Your task to perform on an android device: turn vacation reply on in the gmail app Image 0: 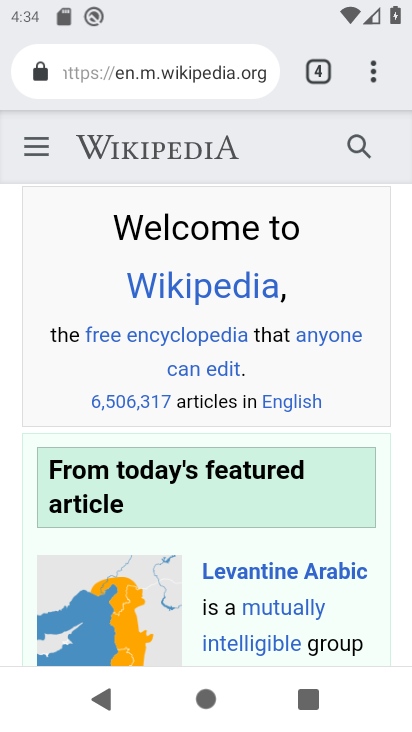
Step 0: press home button
Your task to perform on an android device: turn vacation reply on in the gmail app Image 1: 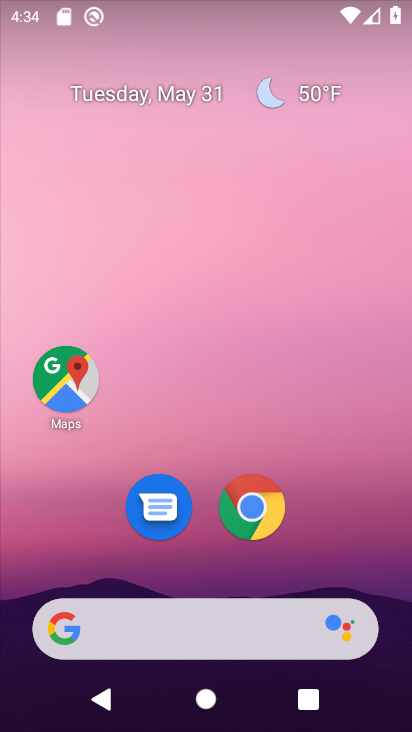
Step 1: drag from (319, 432) to (297, 51)
Your task to perform on an android device: turn vacation reply on in the gmail app Image 2: 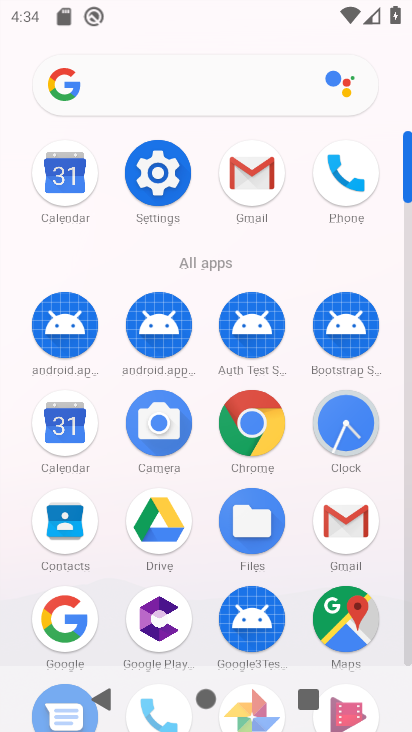
Step 2: click (236, 191)
Your task to perform on an android device: turn vacation reply on in the gmail app Image 3: 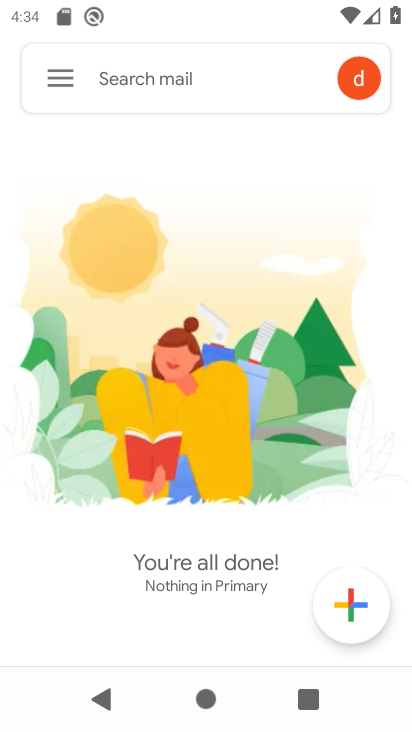
Step 3: click (56, 63)
Your task to perform on an android device: turn vacation reply on in the gmail app Image 4: 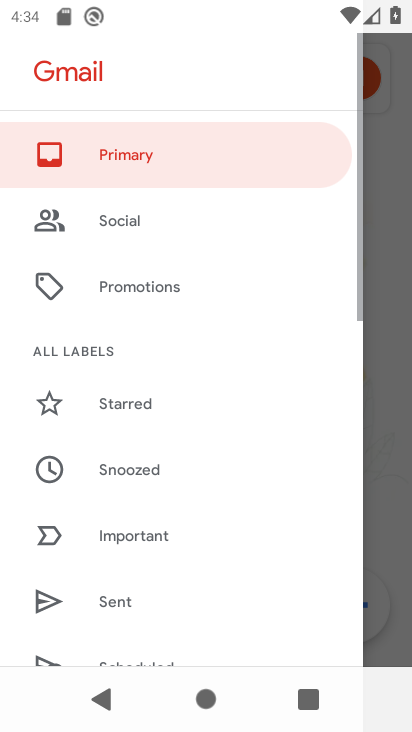
Step 4: drag from (165, 498) to (132, 5)
Your task to perform on an android device: turn vacation reply on in the gmail app Image 5: 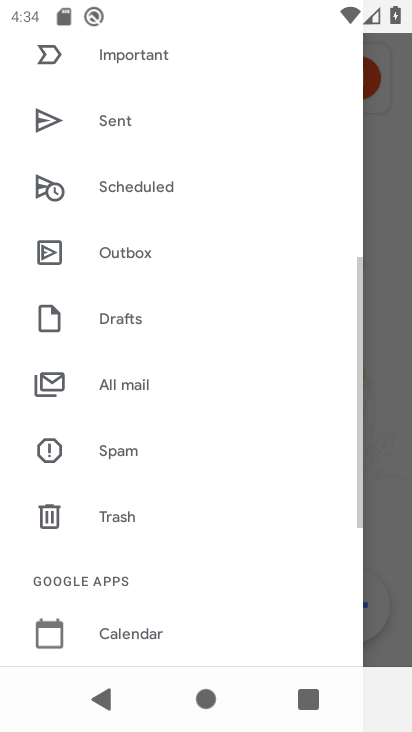
Step 5: drag from (219, 529) to (204, 140)
Your task to perform on an android device: turn vacation reply on in the gmail app Image 6: 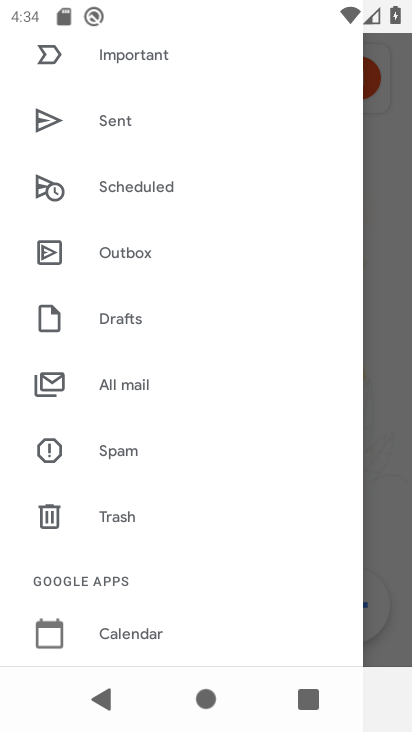
Step 6: drag from (140, 537) to (171, 130)
Your task to perform on an android device: turn vacation reply on in the gmail app Image 7: 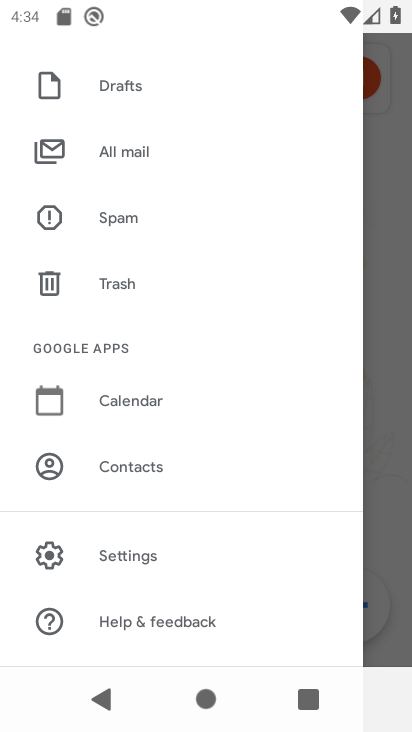
Step 7: click (138, 557)
Your task to perform on an android device: turn vacation reply on in the gmail app Image 8: 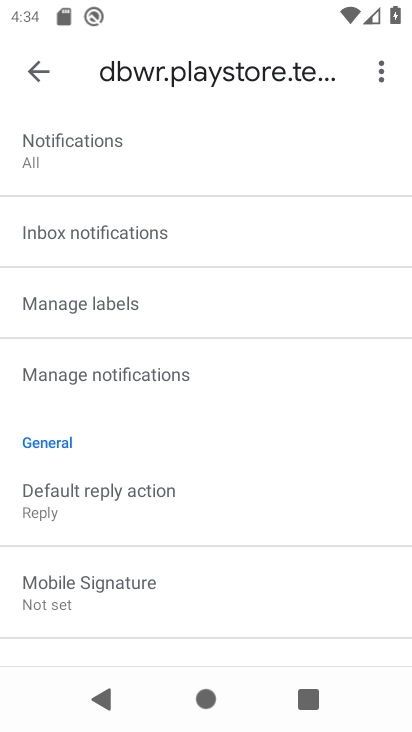
Step 8: drag from (194, 510) to (208, 5)
Your task to perform on an android device: turn vacation reply on in the gmail app Image 9: 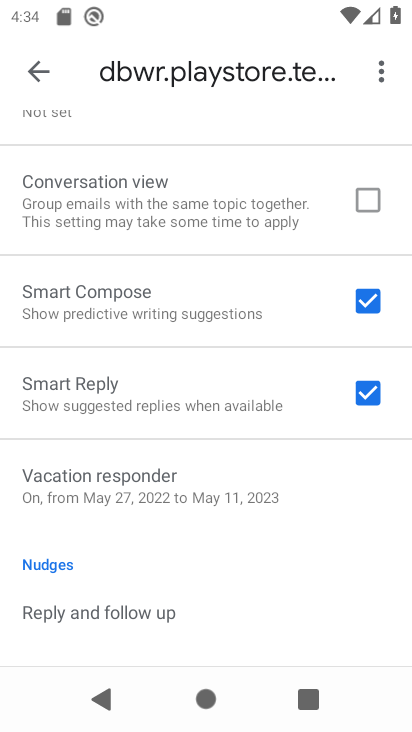
Step 9: click (212, 477)
Your task to perform on an android device: turn vacation reply on in the gmail app Image 10: 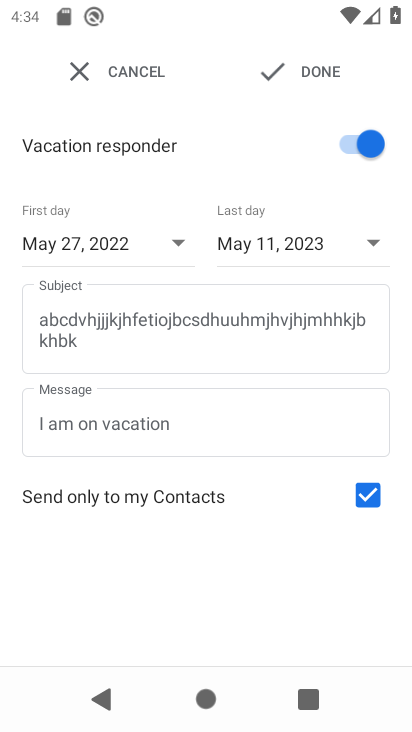
Step 10: task complete